Your task to perform on an android device: turn on data saver in the chrome app Image 0: 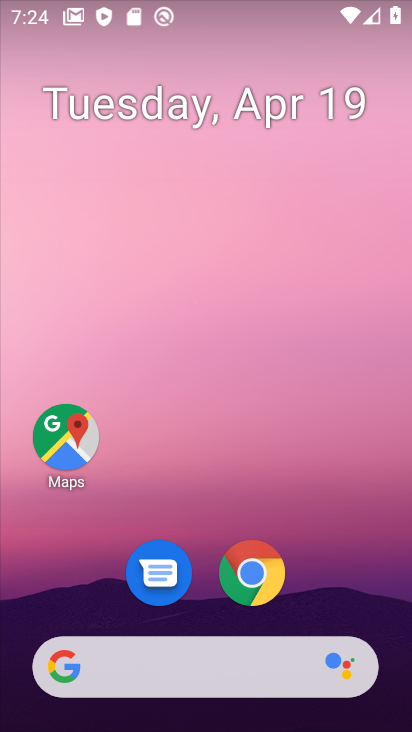
Step 0: click (257, 579)
Your task to perform on an android device: turn on data saver in the chrome app Image 1: 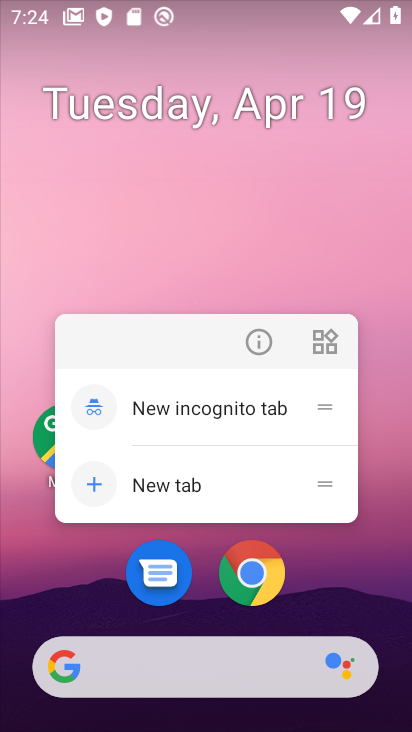
Step 1: click (257, 579)
Your task to perform on an android device: turn on data saver in the chrome app Image 2: 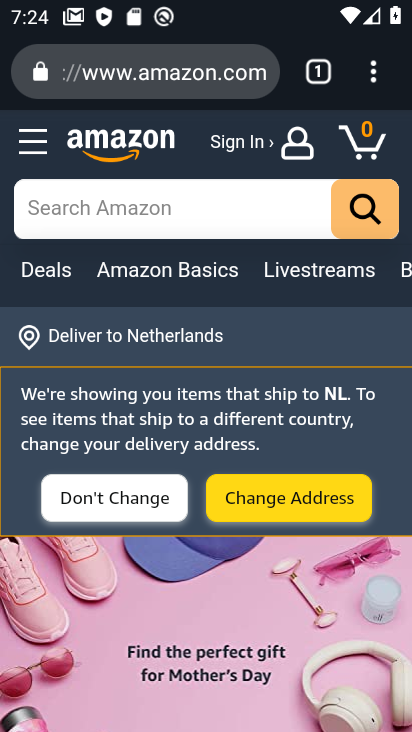
Step 2: click (372, 62)
Your task to perform on an android device: turn on data saver in the chrome app Image 3: 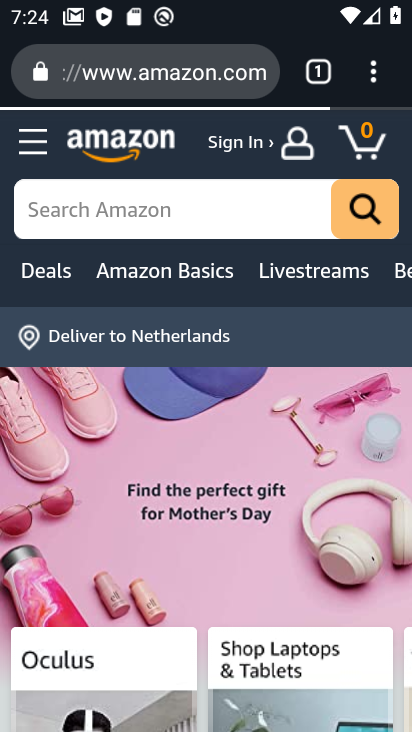
Step 3: click (372, 62)
Your task to perform on an android device: turn on data saver in the chrome app Image 4: 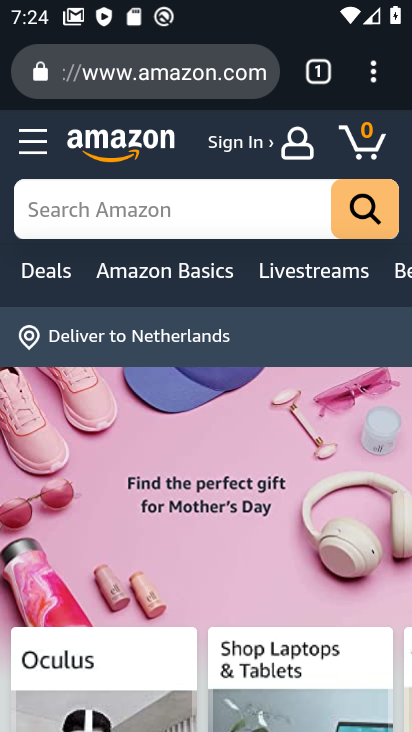
Step 4: click (372, 62)
Your task to perform on an android device: turn on data saver in the chrome app Image 5: 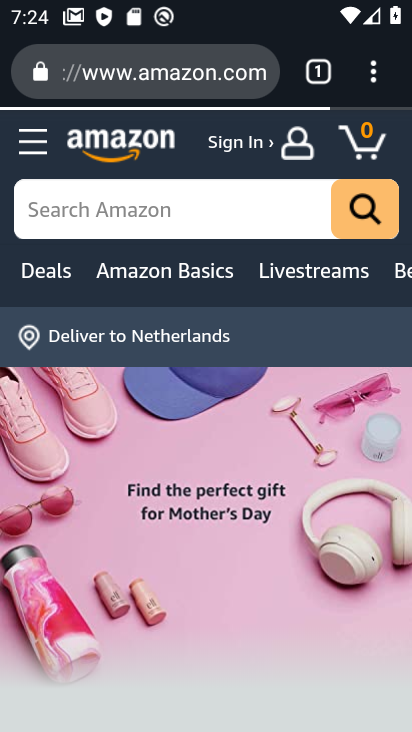
Step 5: click (372, 62)
Your task to perform on an android device: turn on data saver in the chrome app Image 6: 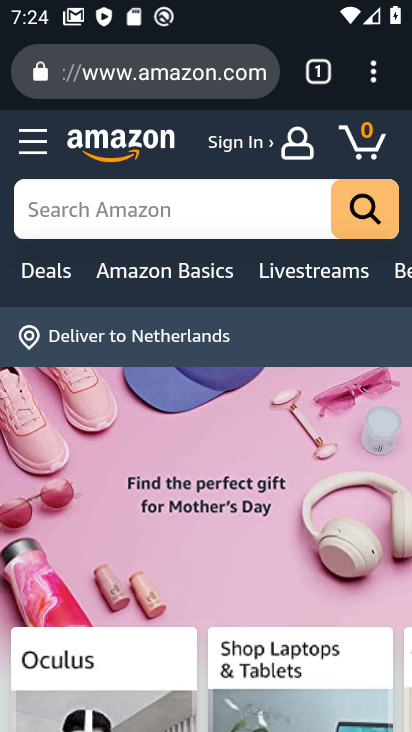
Step 6: click (372, 62)
Your task to perform on an android device: turn on data saver in the chrome app Image 7: 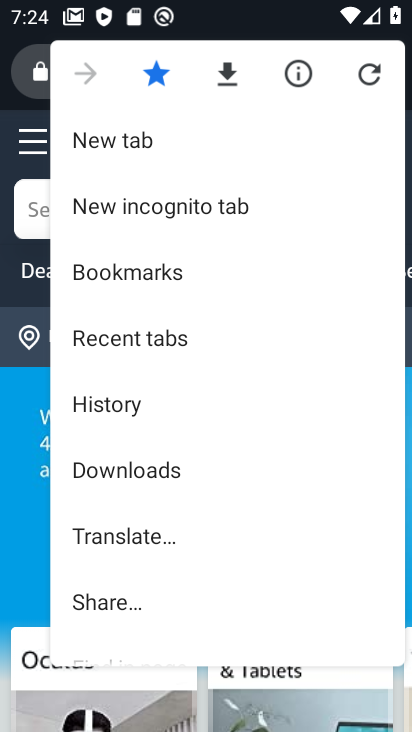
Step 7: drag from (232, 500) to (234, 283)
Your task to perform on an android device: turn on data saver in the chrome app Image 8: 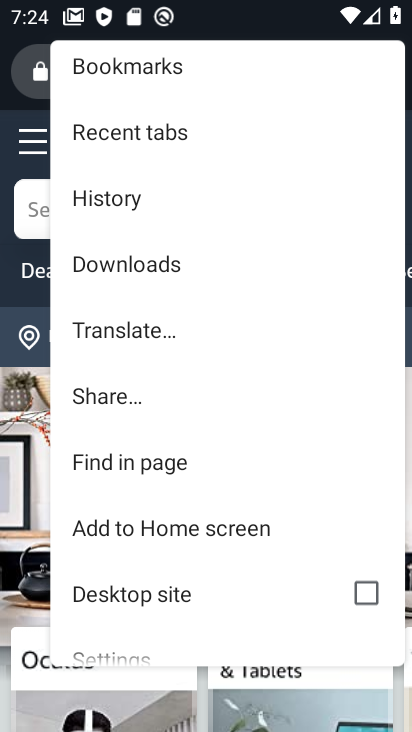
Step 8: click (265, 327)
Your task to perform on an android device: turn on data saver in the chrome app Image 9: 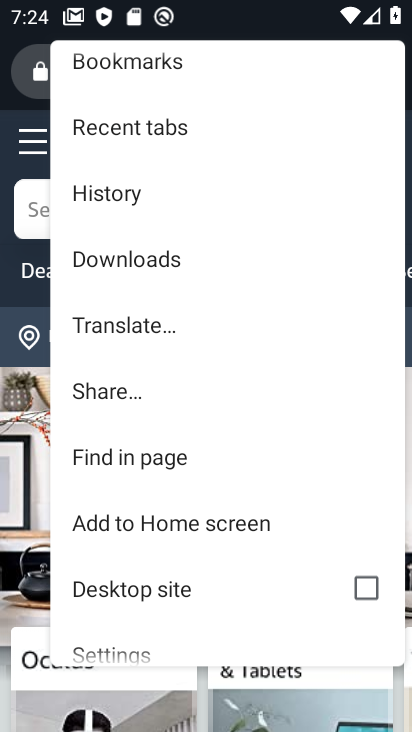
Step 9: click (99, 646)
Your task to perform on an android device: turn on data saver in the chrome app Image 10: 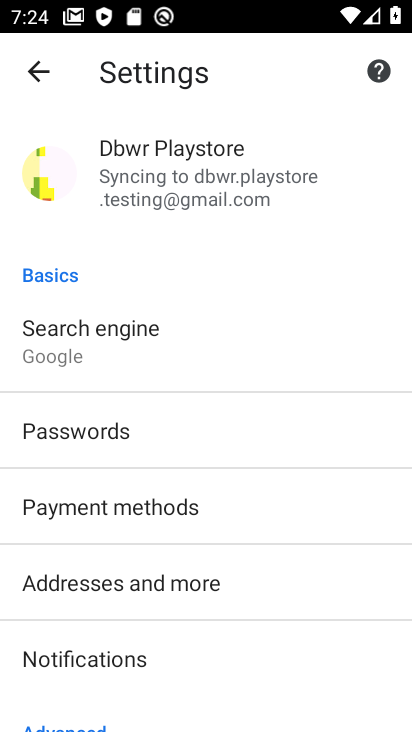
Step 10: drag from (267, 415) to (273, 281)
Your task to perform on an android device: turn on data saver in the chrome app Image 11: 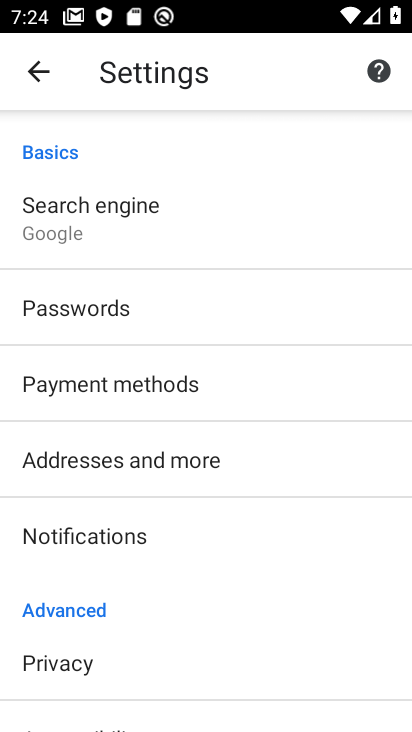
Step 11: drag from (268, 575) to (266, 279)
Your task to perform on an android device: turn on data saver in the chrome app Image 12: 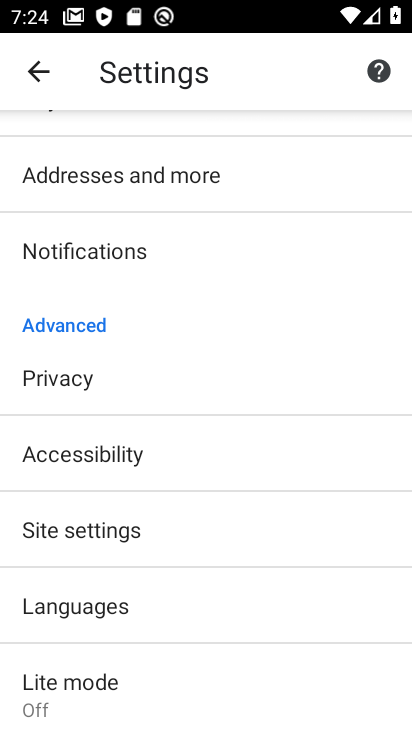
Step 12: click (81, 678)
Your task to perform on an android device: turn on data saver in the chrome app Image 13: 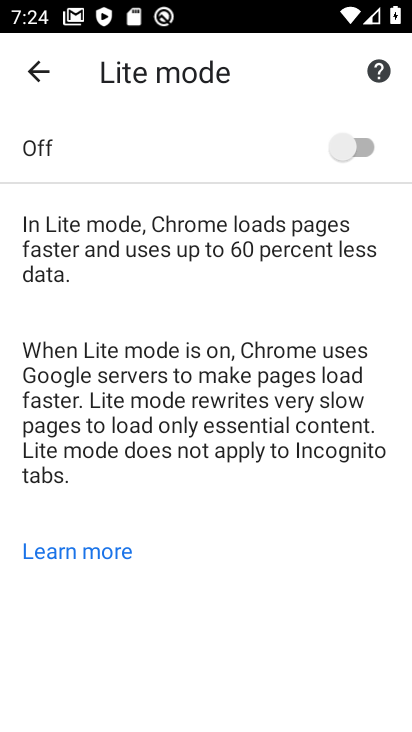
Step 13: click (359, 144)
Your task to perform on an android device: turn on data saver in the chrome app Image 14: 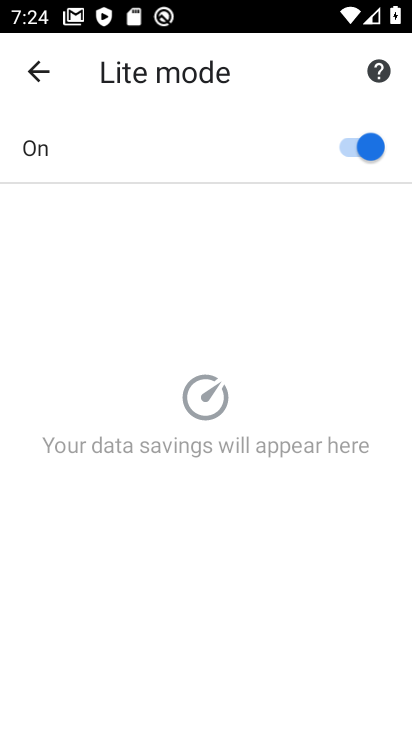
Step 14: task complete